Your task to perform on an android device: turn off improve location accuracy Image 0: 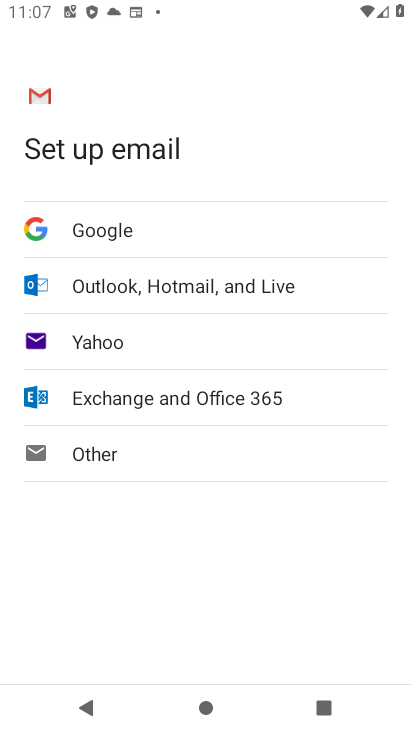
Step 0: press home button
Your task to perform on an android device: turn off improve location accuracy Image 1: 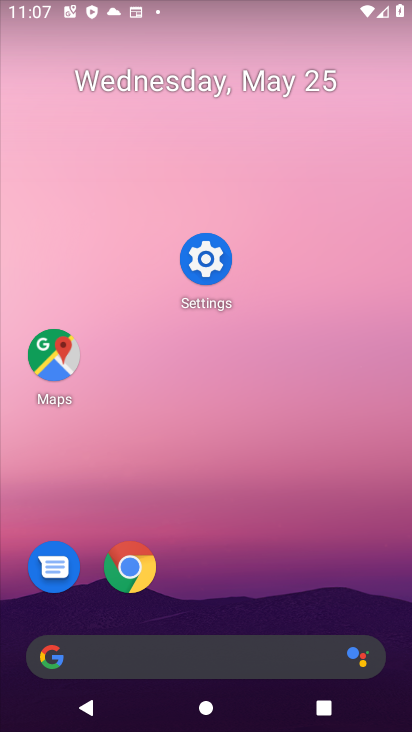
Step 1: click (209, 304)
Your task to perform on an android device: turn off improve location accuracy Image 2: 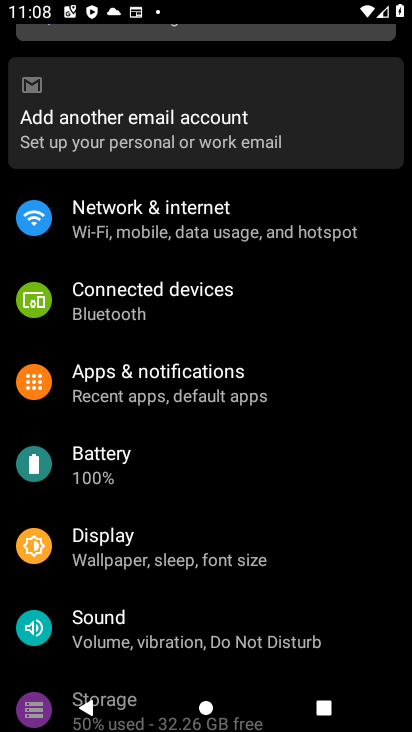
Step 2: drag from (203, 627) to (202, 500)
Your task to perform on an android device: turn off improve location accuracy Image 3: 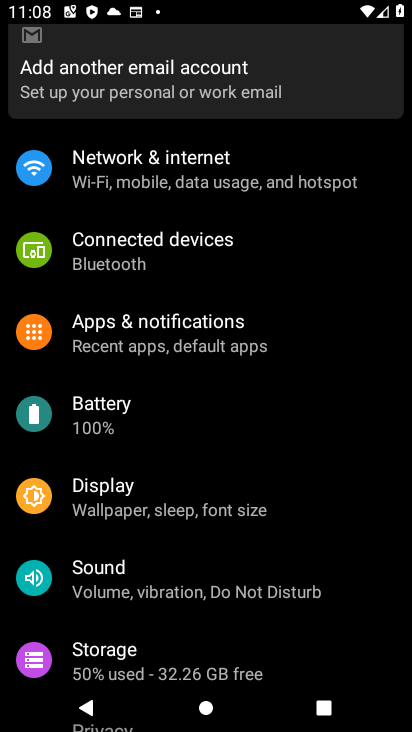
Step 3: drag from (259, 630) to (252, 447)
Your task to perform on an android device: turn off improve location accuracy Image 4: 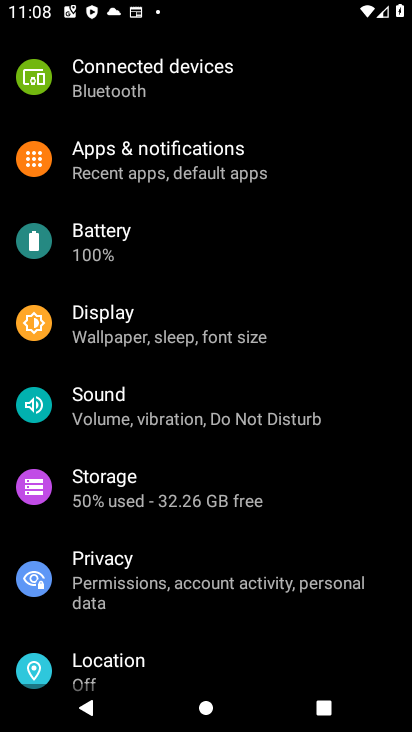
Step 4: click (177, 656)
Your task to perform on an android device: turn off improve location accuracy Image 5: 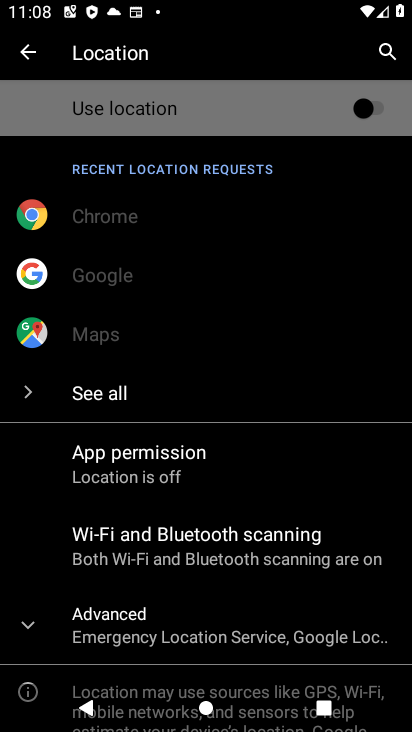
Step 5: click (179, 639)
Your task to perform on an android device: turn off improve location accuracy Image 6: 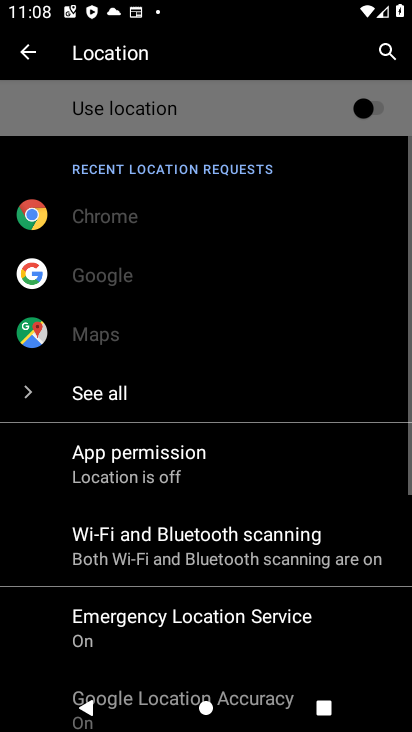
Step 6: drag from (281, 594) to (273, 404)
Your task to perform on an android device: turn off improve location accuracy Image 7: 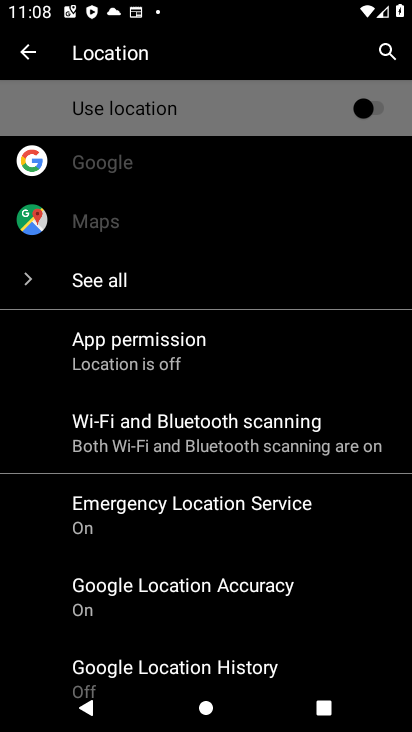
Step 7: click (169, 644)
Your task to perform on an android device: turn off improve location accuracy Image 8: 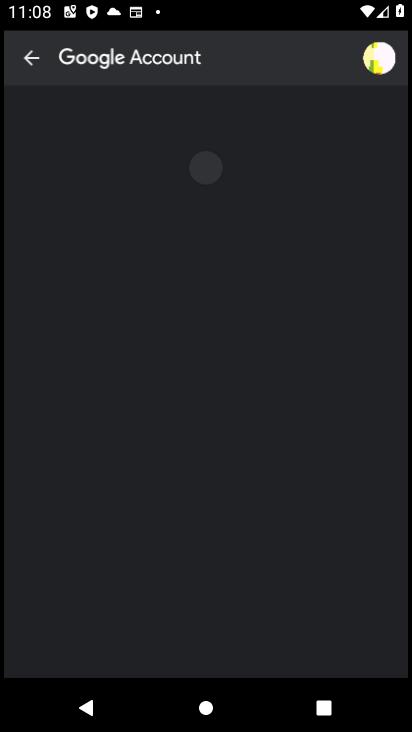
Step 8: task complete